Your task to perform on an android device: turn pop-ups off in chrome Image 0: 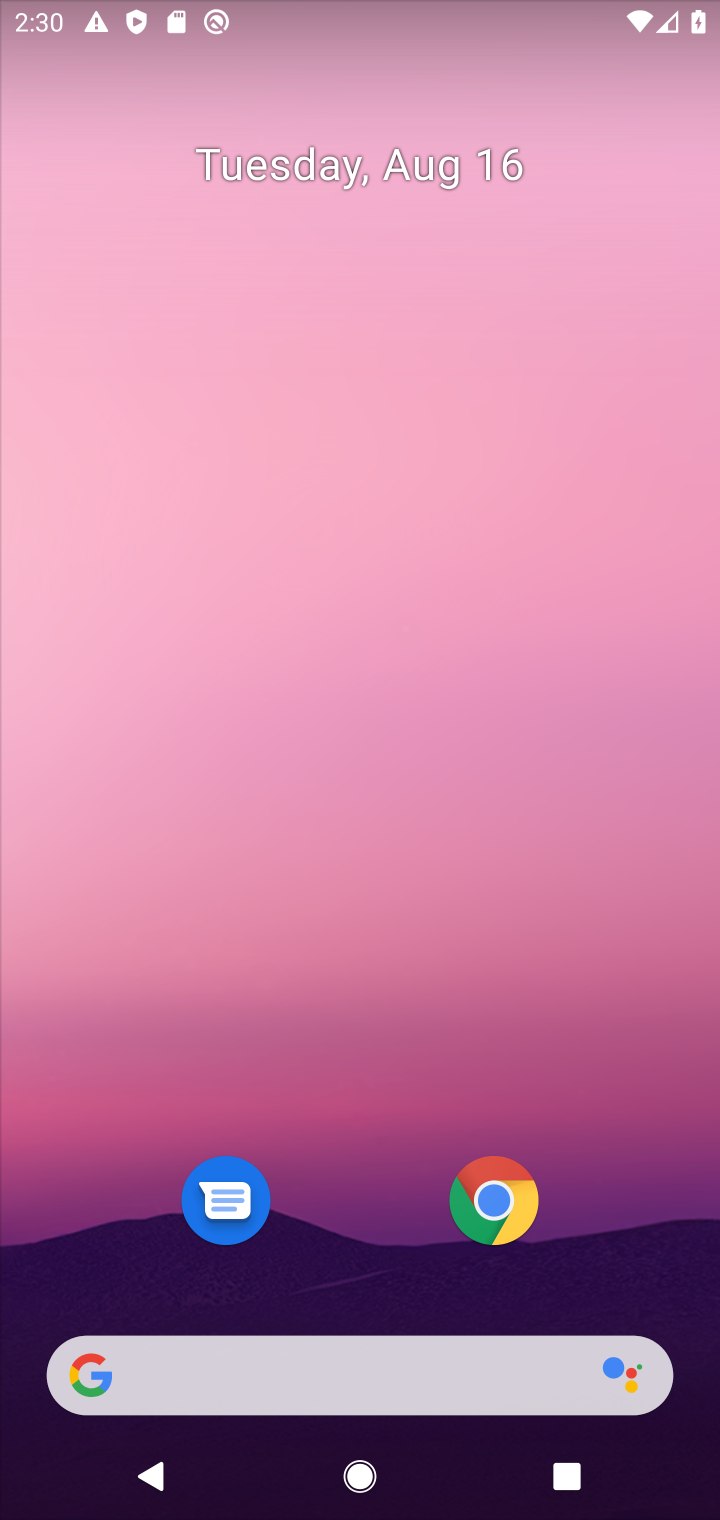
Step 0: click (494, 1202)
Your task to perform on an android device: turn pop-ups off in chrome Image 1: 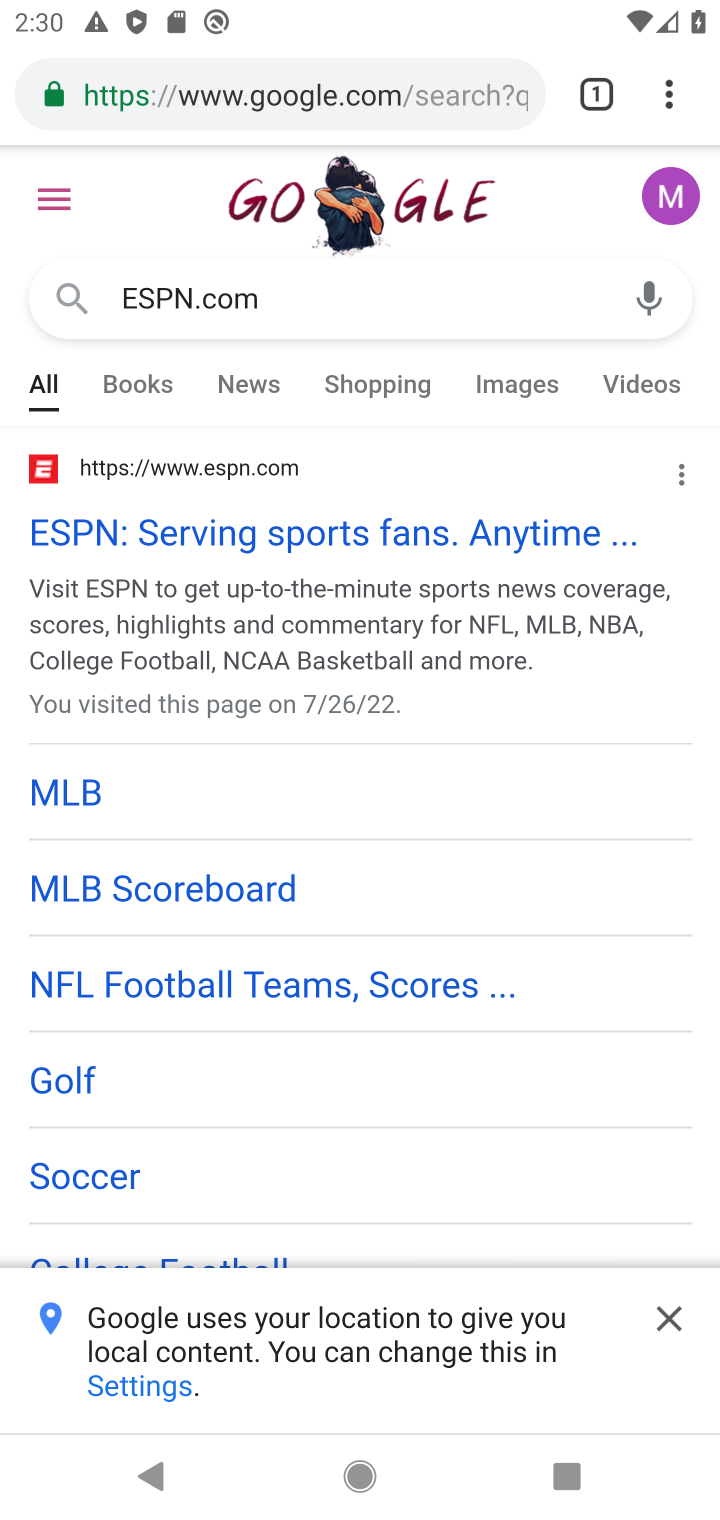
Step 1: click (678, 76)
Your task to perform on an android device: turn pop-ups off in chrome Image 2: 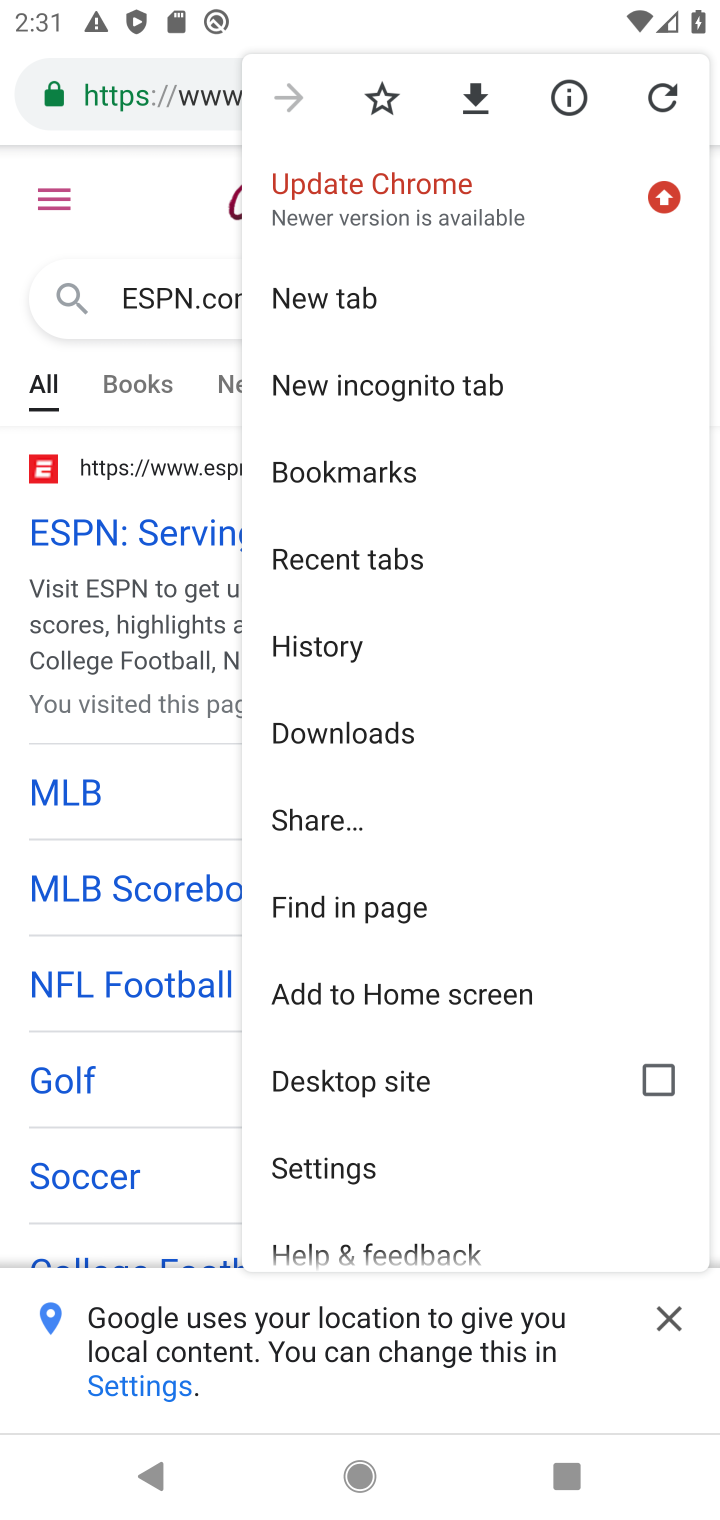
Step 2: click (311, 1156)
Your task to perform on an android device: turn pop-ups off in chrome Image 3: 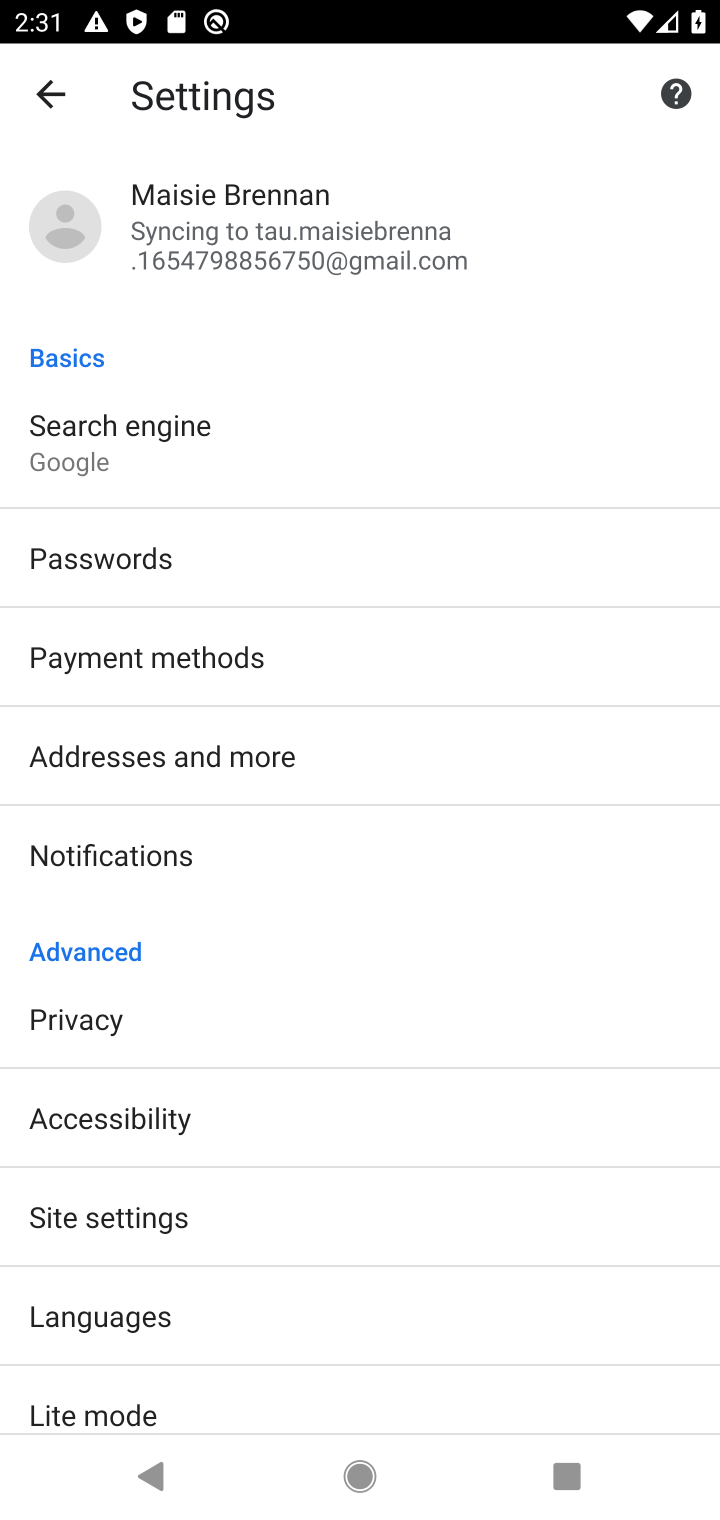
Step 3: click (126, 1208)
Your task to perform on an android device: turn pop-ups off in chrome Image 4: 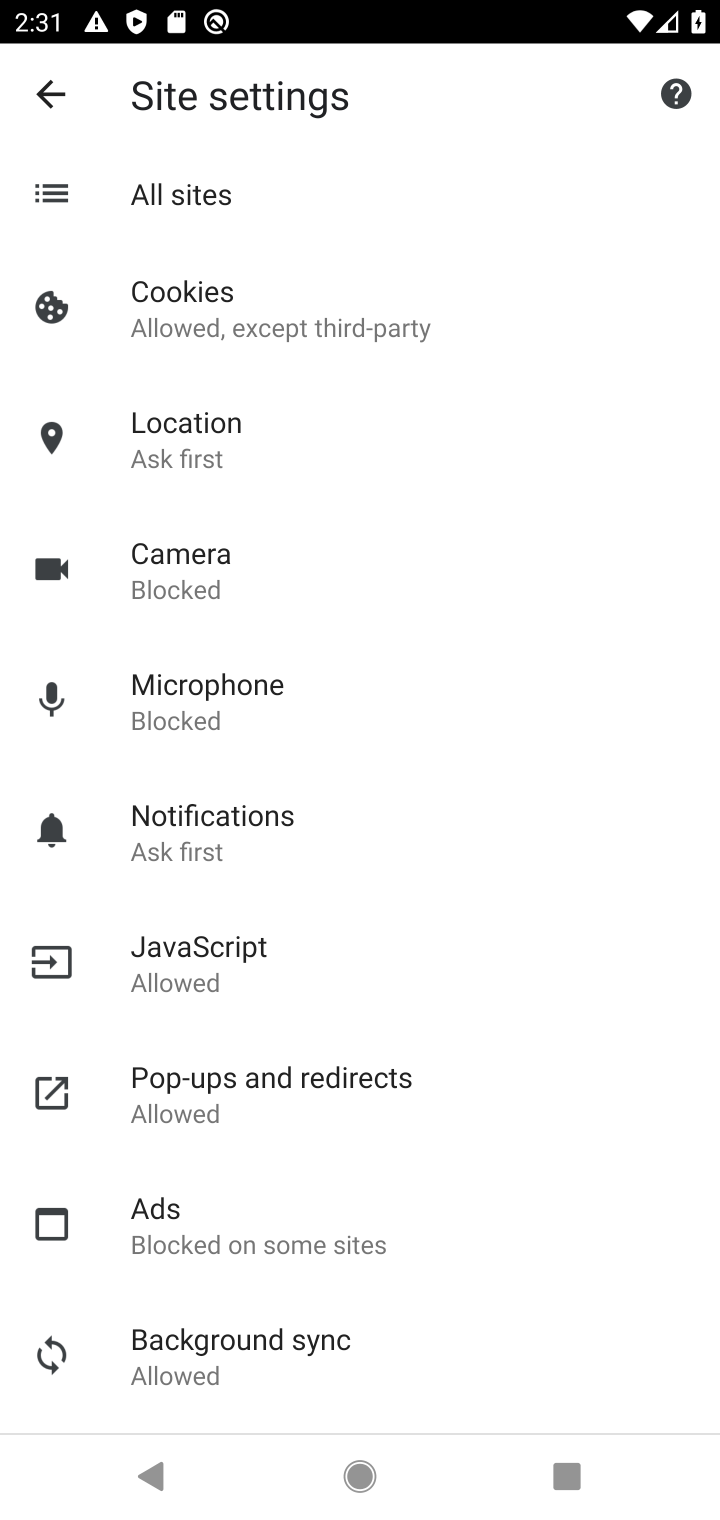
Step 4: click (197, 1089)
Your task to perform on an android device: turn pop-ups off in chrome Image 5: 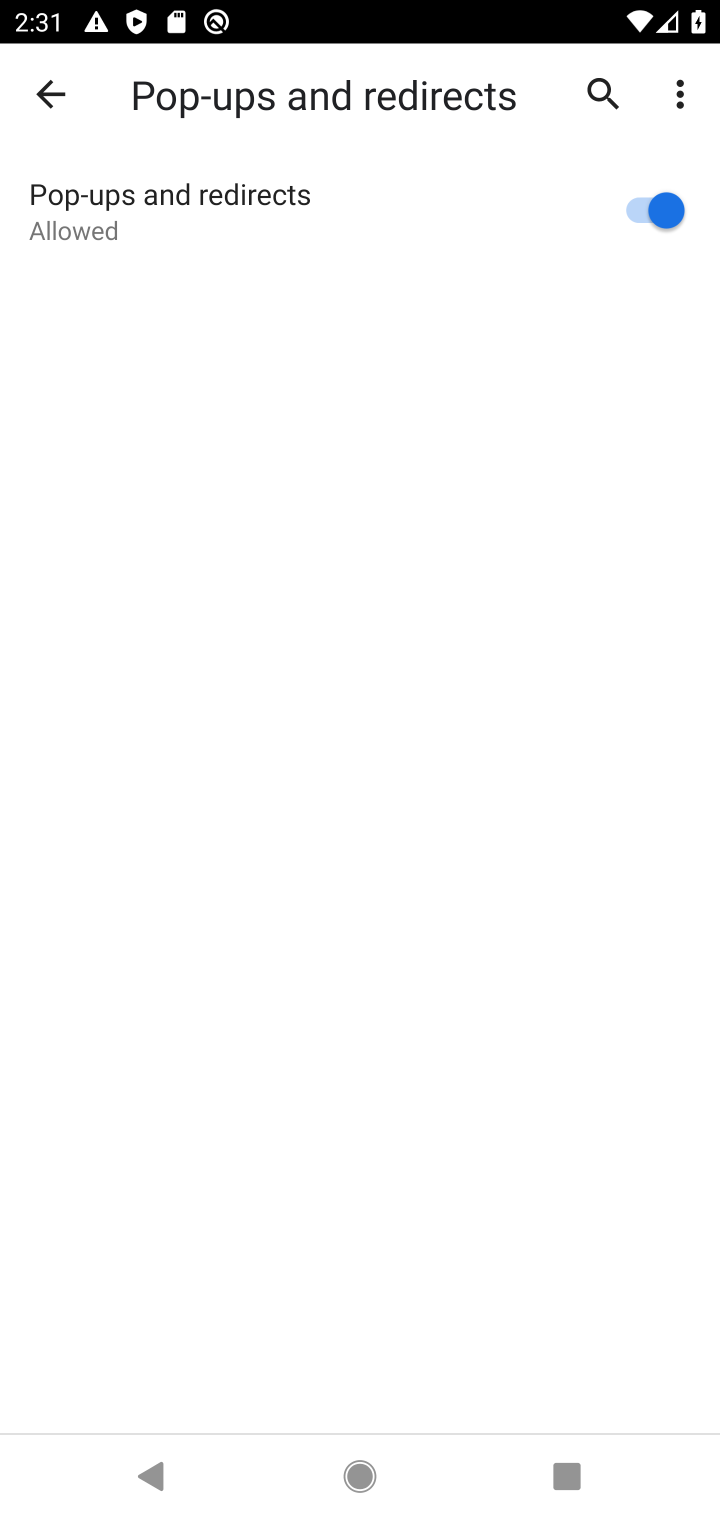
Step 5: task complete